Your task to perform on an android device: When is my next appointment? Image 0: 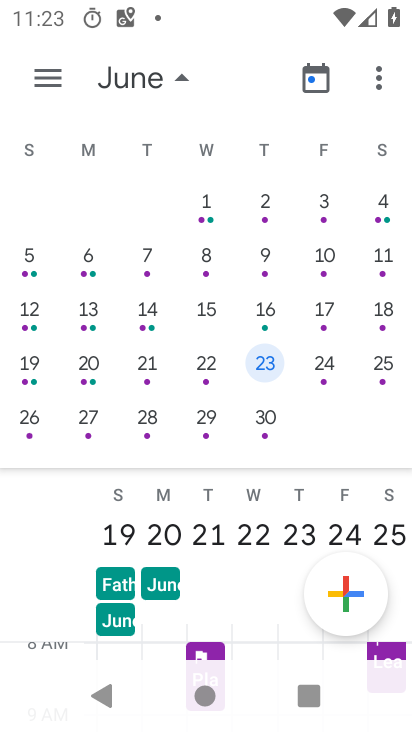
Step 0: press home button
Your task to perform on an android device: When is my next appointment? Image 1: 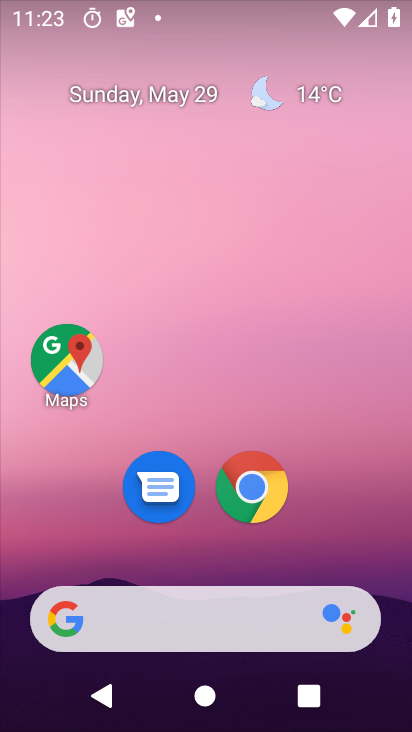
Step 1: drag from (395, 579) to (406, 97)
Your task to perform on an android device: When is my next appointment? Image 2: 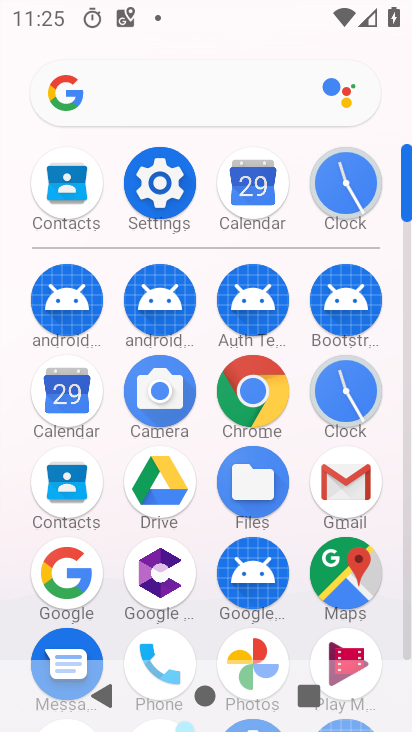
Step 2: click (78, 413)
Your task to perform on an android device: When is my next appointment? Image 3: 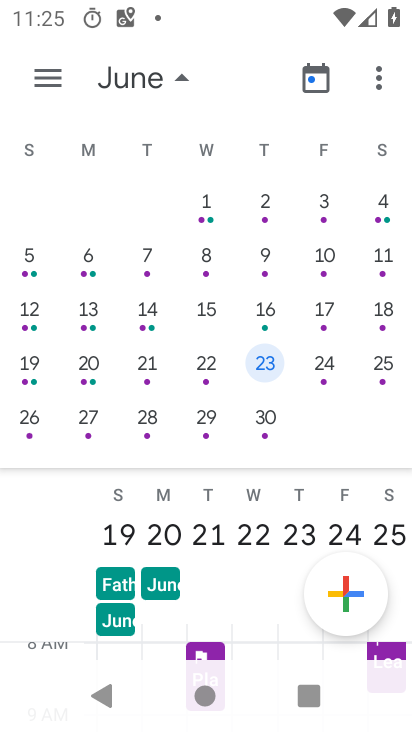
Step 3: drag from (79, 194) to (378, 208)
Your task to perform on an android device: When is my next appointment? Image 4: 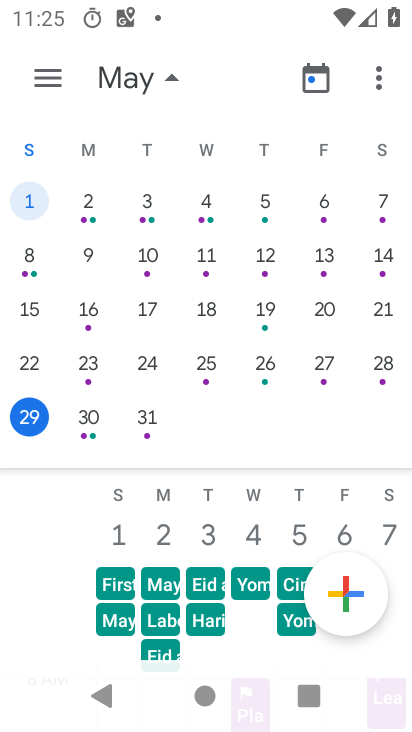
Step 4: click (38, 73)
Your task to perform on an android device: When is my next appointment? Image 5: 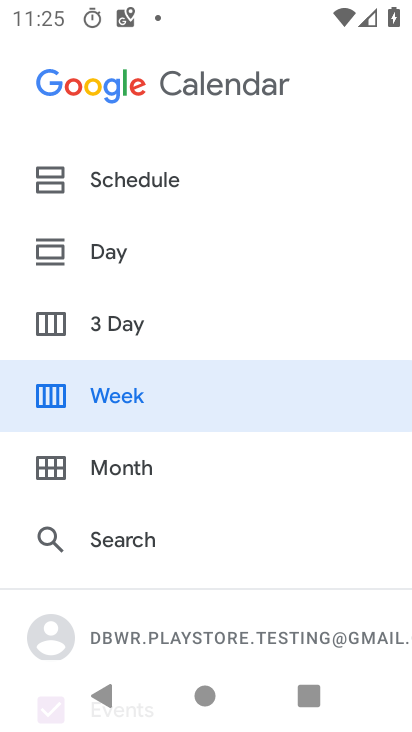
Step 5: click (124, 181)
Your task to perform on an android device: When is my next appointment? Image 6: 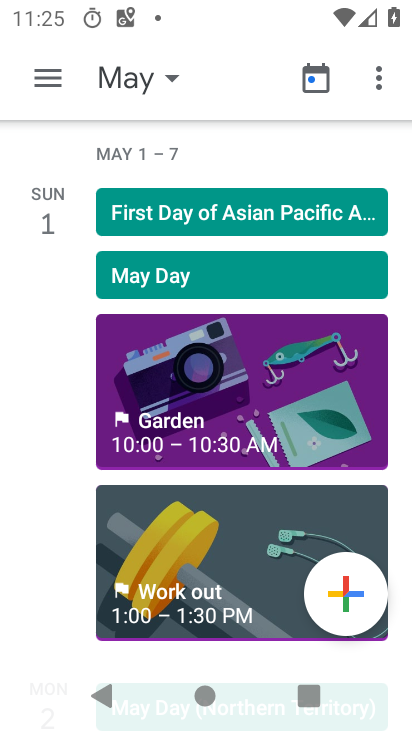
Step 6: click (161, 79)
Your task to perform on an android device: When is my next appointment? Image 7: 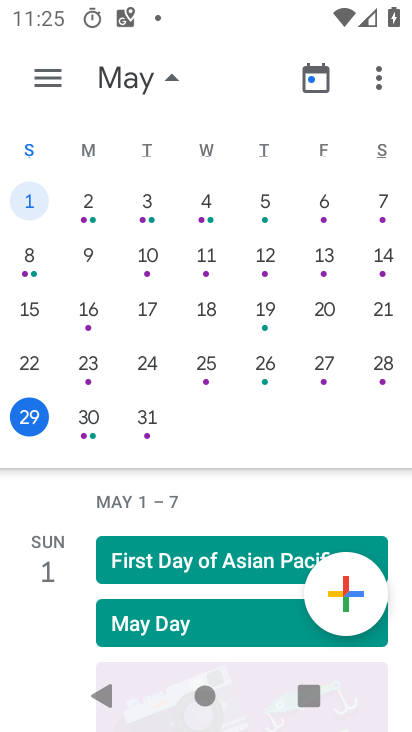
Step 7: click (73, 410)
Your task to perform on an android device: When is my next appointment? Image 8: 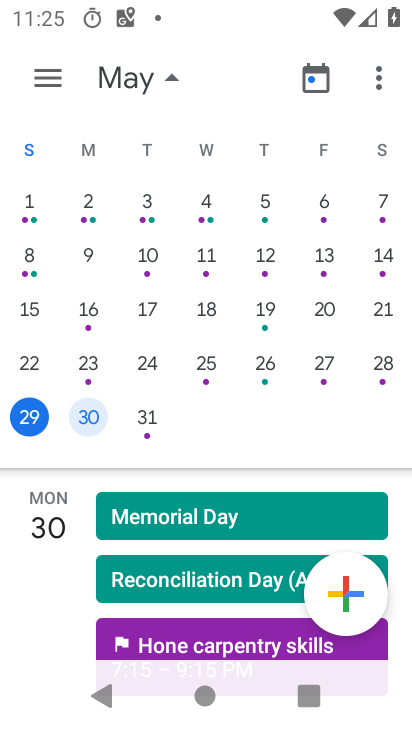
Step 8: click (35, 52)
Your task to perform on an android device: When is my next appointment? Image 9: 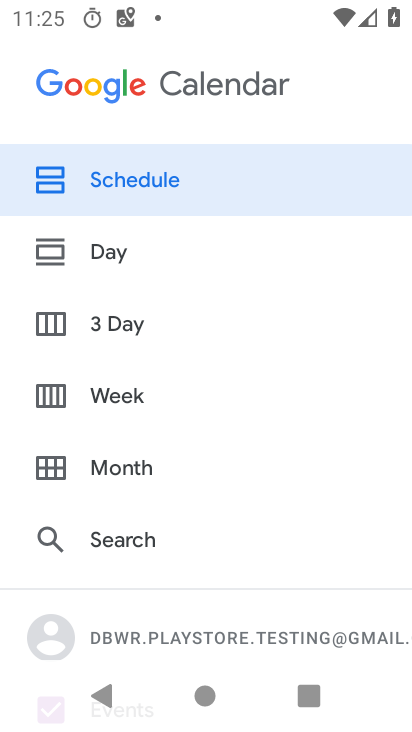
Step 9: click (67, 192)
Your task to perform on an android device: When is my next appointment? Image 10: 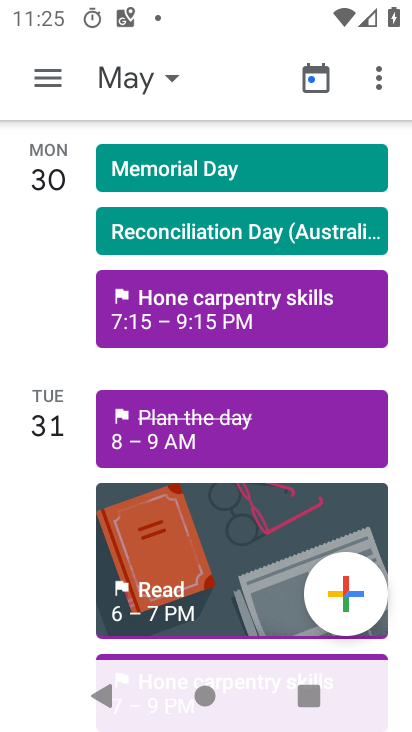
Step 10: task complete